Your task to perform on an android device: find which apps use the phone's location Image 0: 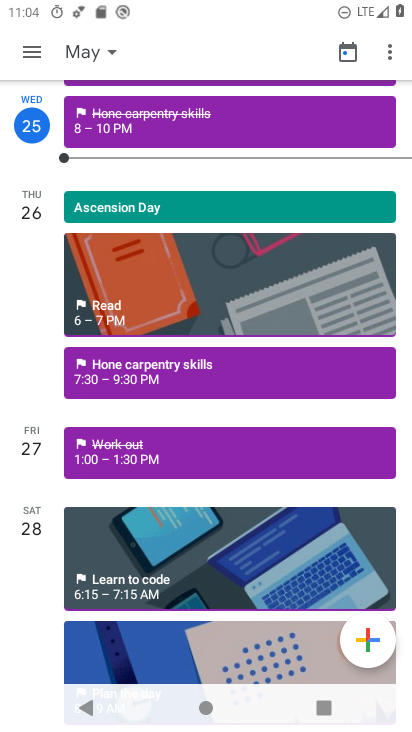
Step 0: press back button
Your task to perform on an android device: find which apps use the phone's location Image 1: 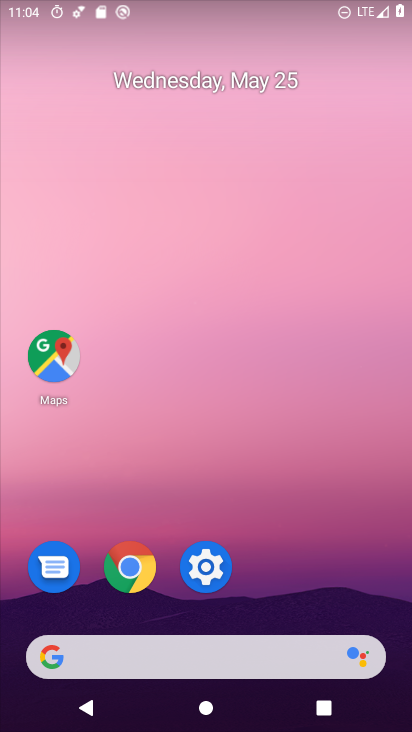
Step 1: drag from (275, 682) to (147, 45)
Your task to perform on an android device: find which apps use the phone's location Image 2: 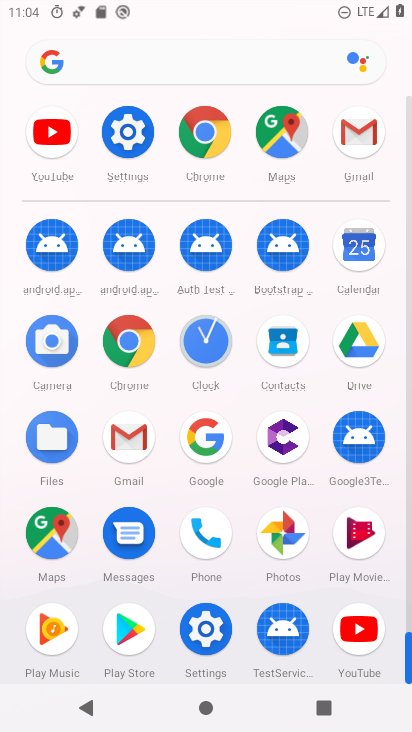
Step 2: click (191, 613)
Your task to perform on an android device: find which apps use the phone's location Image 3: 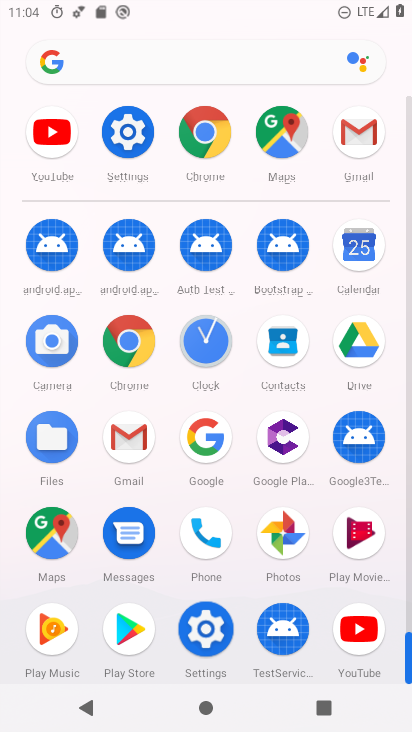
Step 3: click (191, 613)
Your task to perform on an android device: find which apps use the phone's location Image 4: 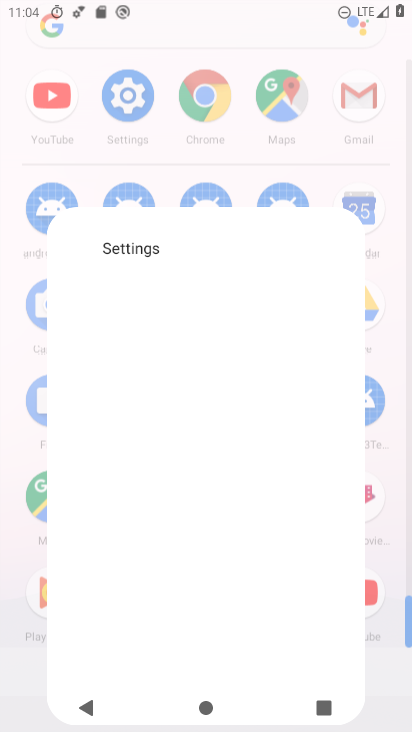
Step 4: click (192, 615)
Your task to perform on an android device: find which apps use the phone's location Image 5: 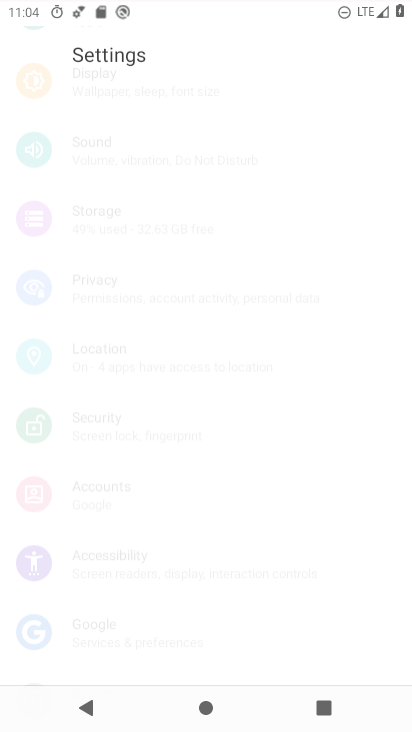
Step 5: click (192, 615)
Your task to perform on an android device: find which apps use the phone's location Image 6: 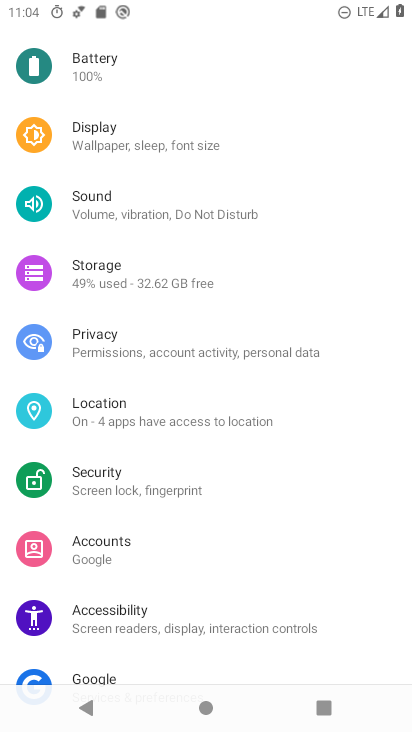
Step 6: click (99, 408)
Your task to perform on an android device: find which apps use the phone's location Image 7: 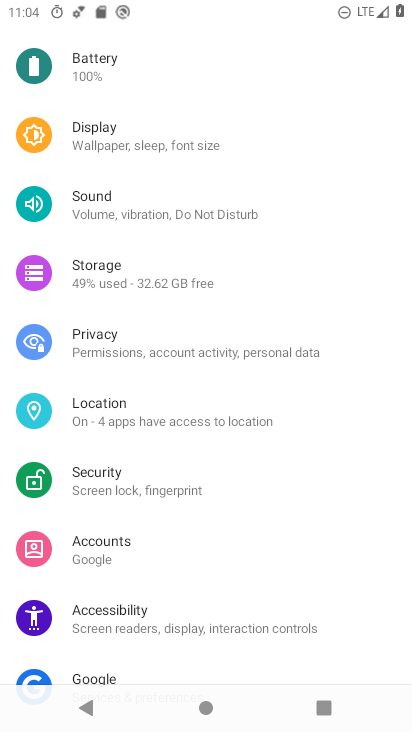
Step 7: click (103, 413)
Your task to perform on an android device: find which apps use the phone's location Image 8: 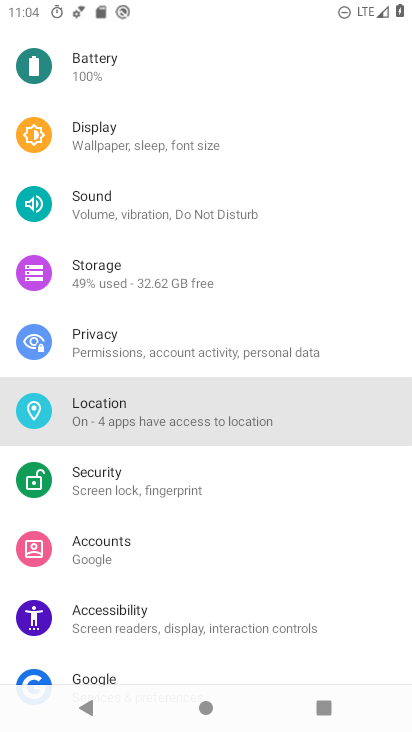
Step 8: click (108, 413)
Your task to perform on an android device: find which apps use the phone's location Image 9: 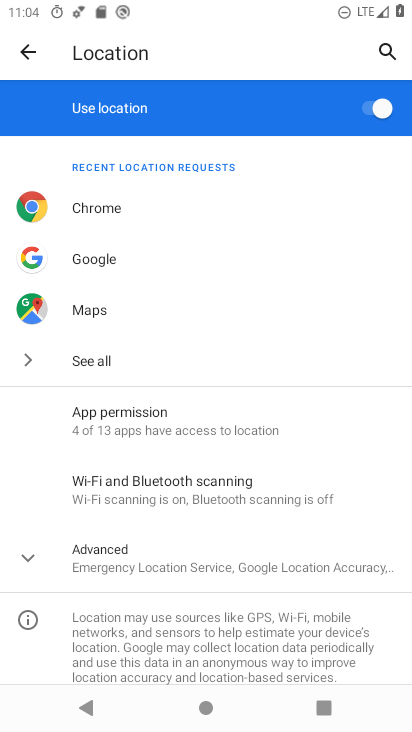
Step 9: click (118, 418)
Your task to perform on an android device: find which apps use the phone's location Image 10: 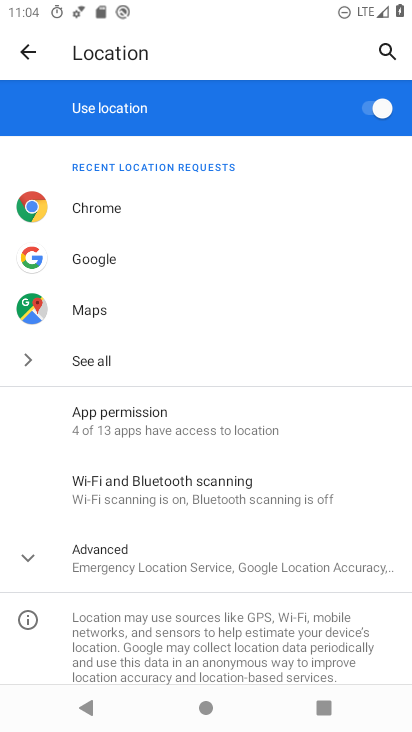
Step 10: click (118, 418)
Your task to perform on an android device: find which apps use the phone's location Image 11: 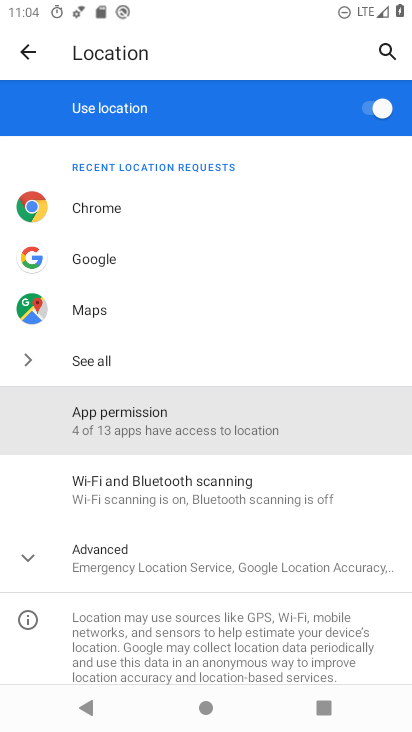
Step 11: click (118, 418)
Your task to perform on an android device: find which apps use the phone's location Image 12: 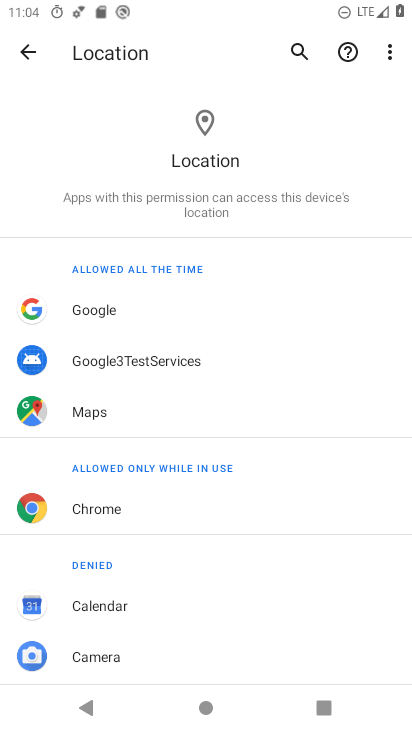
Step 12: task complete